Your task to perform on an android device: Open Chrome and go to the settings page Image 0: 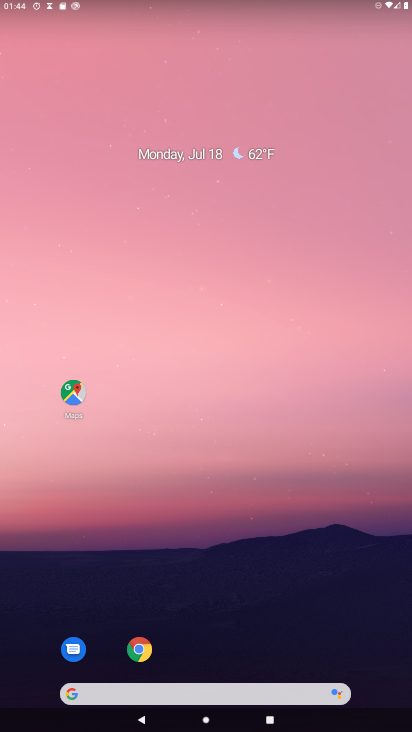
Step 0: click (106, 689)
Your task to perform on an android device: Open Chrome and go to the settings page Image 1: 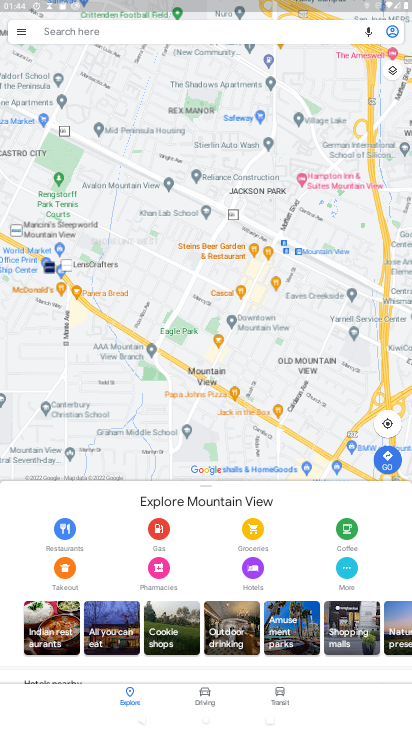
Step 1: press home button
Your task to perform on an android device: Open Chrome and go to the settings page Image 2: 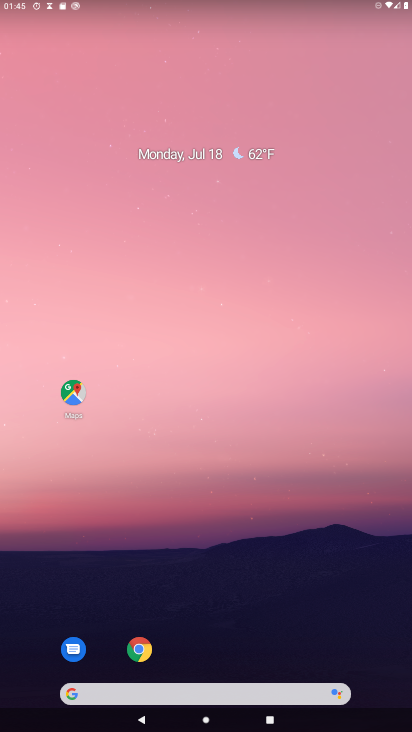
Step 2: click (126, 648)
Your task to perform on an android device: Open Chrome and go to the settings page Image 3: 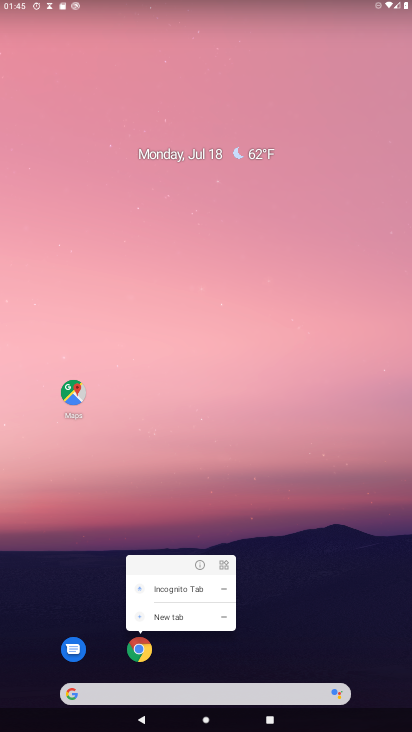
Step 3: click (141, 649)
Your task to perform on an android device: Open Chrome and go to the settings page Image 4: 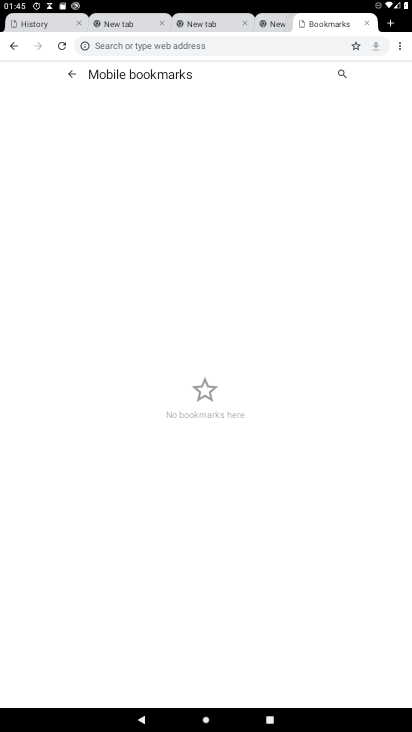
Step 4: click (395, 47)
Your task to perform on an android device: Open Chrome and go to the settings page Image 5: 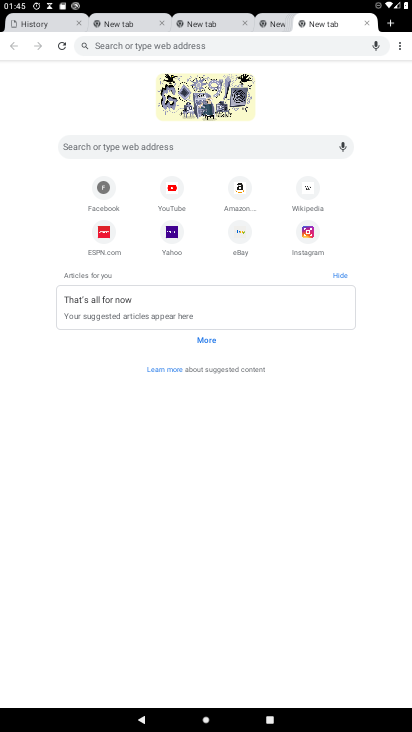
Step 5: click (399, 41)
Your task to perform on an android device: Open Chrome and go to the settings page Image 6: 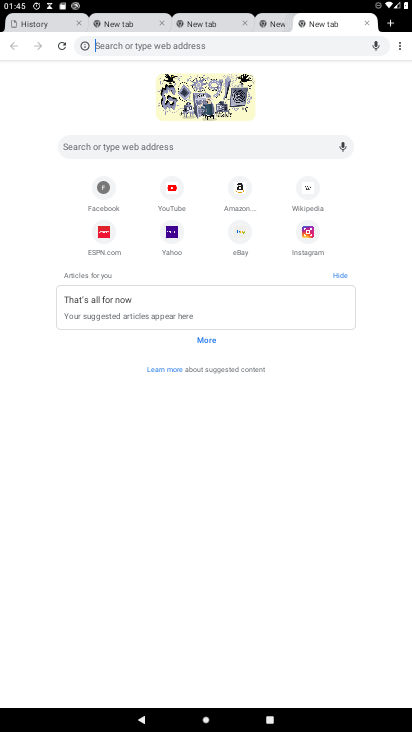
Step 6: click (398, 42)
Your task to perform on an android device: Open Chrome and go to the settings page Image 7: 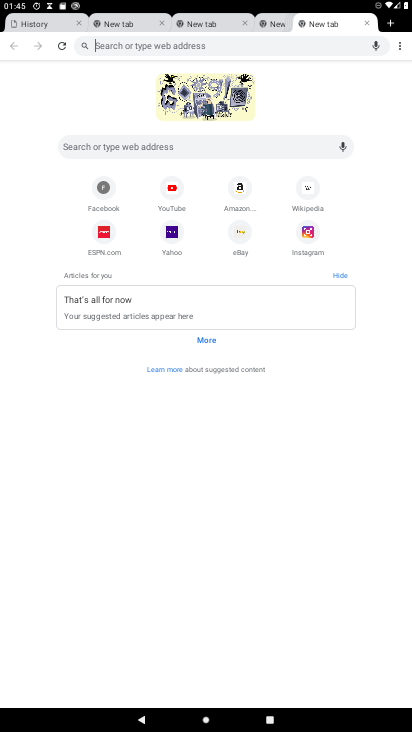
Step 7: task complete